Your task to perform on an android device: What's the news about the US stock market? Image 0: 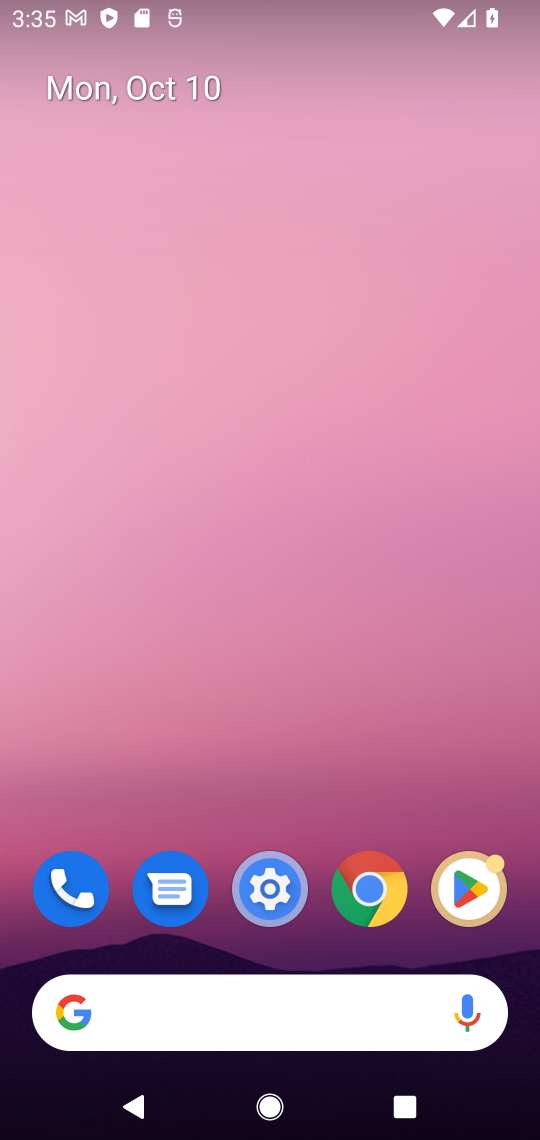
Step 0: click (374, 895)
Your task to perform on an android device: What's the news about the US stock market? Image 1: 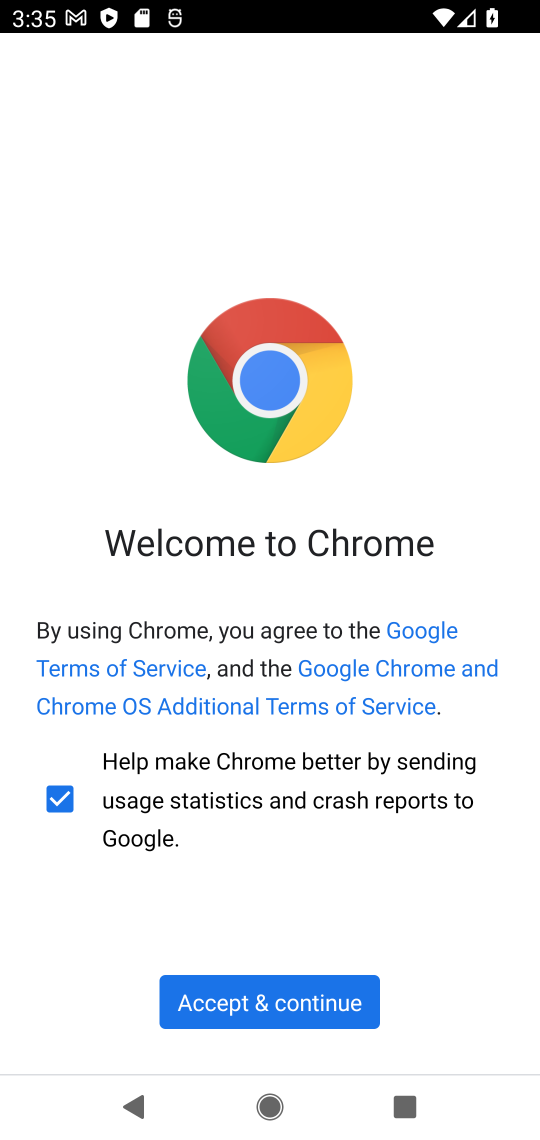
Step 1: click (264, 1006)
Your task to perform on an android device: What's the news about the US stock market? Image 2: 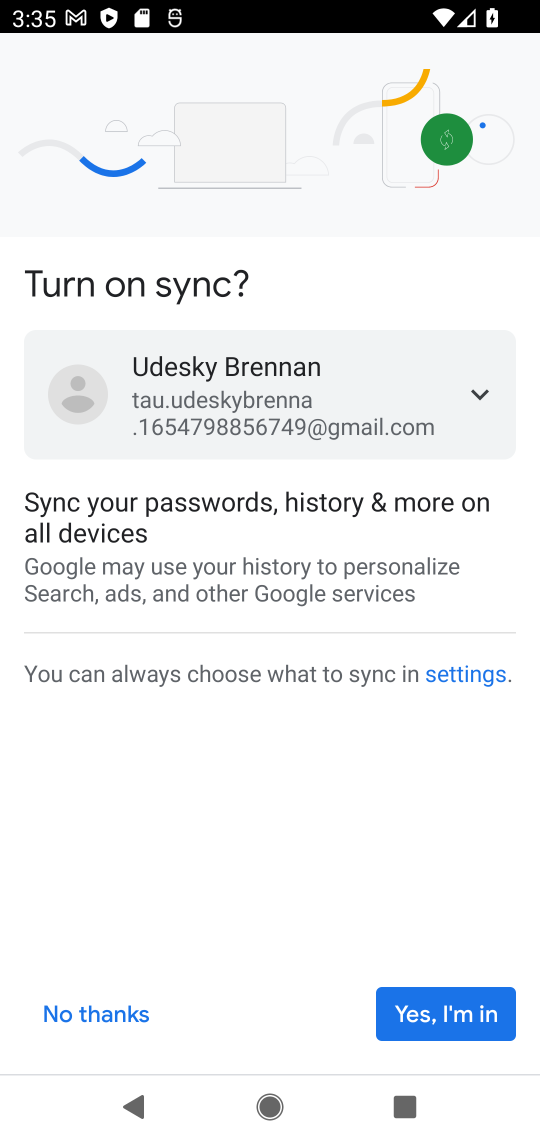
Step 2: click (459, 1015)
Your task to perform on an android device: What's the news about the US stock market? Image 3: 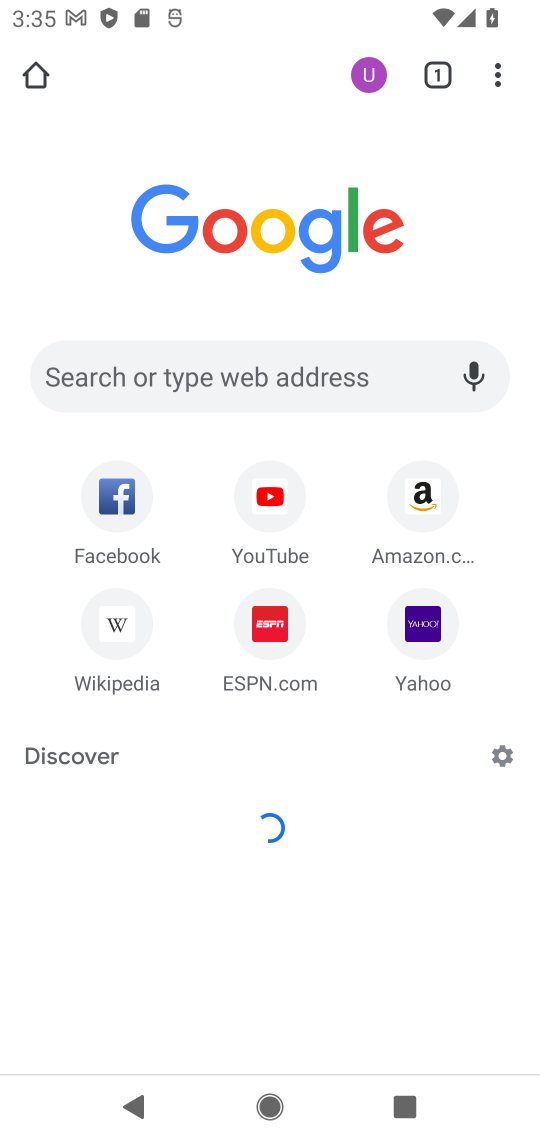
Step 3: click (157, 375)
Your task to perform on an android device: What's the news about the US stock market? Image 4: 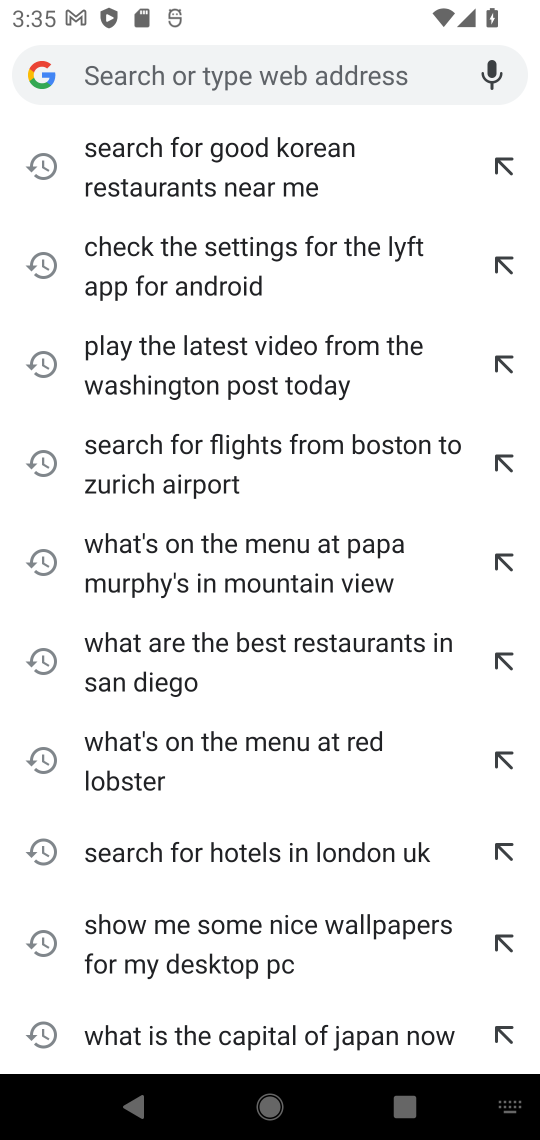
Step 4: type " news about the US stock market?"
Your task to perform on an android device: What's the news about the US stock market? Image 5: 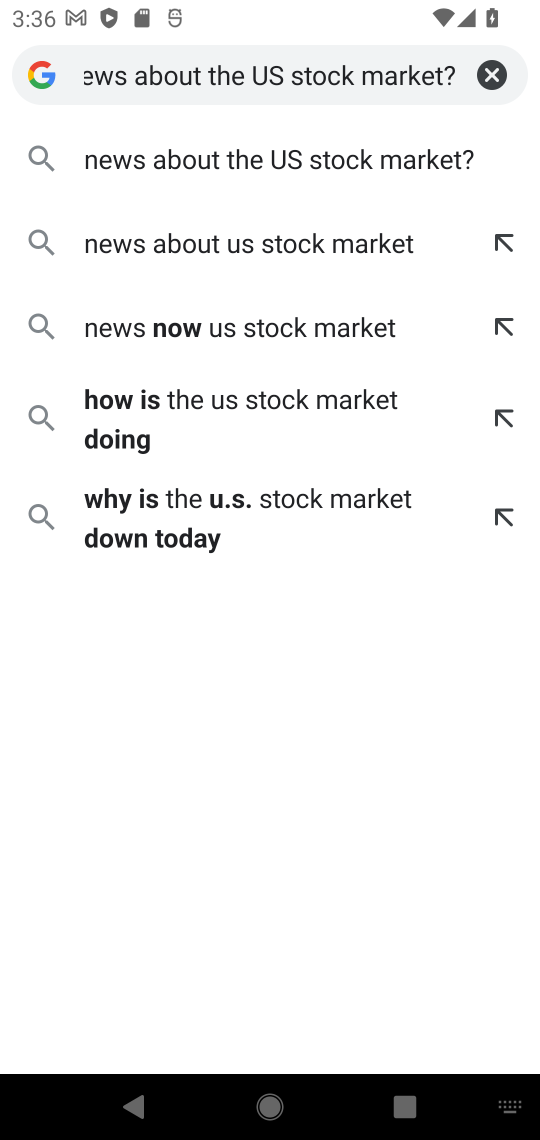
Step 5: click (219, 160)
Your task to perform on an android device: What's the news about the US stock market? Image 6: 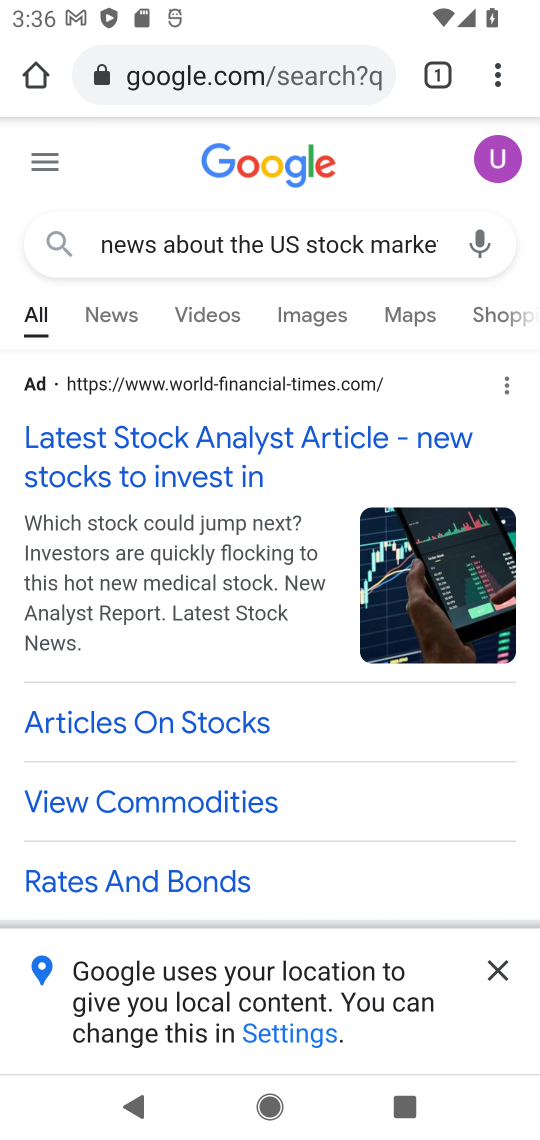
Step 6: click (100, 471)
Your task to perform on an android device: What's the news about the US stock market? Image 7: 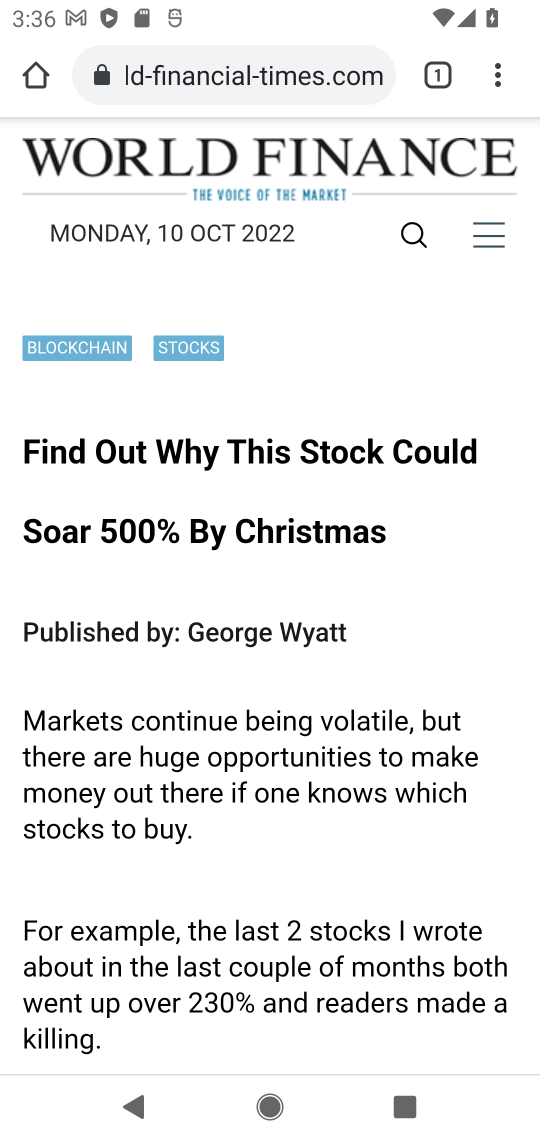
Step 7: task complete